Your task to perform on an android device: toggle wifi Image 0: 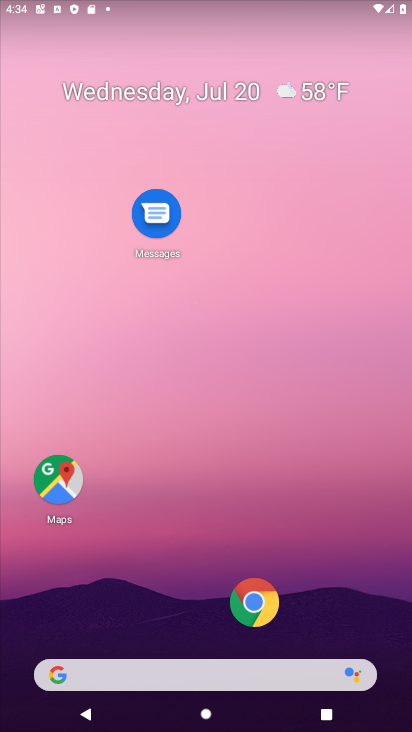
Step 0: drag from (201, 561) to (207, 24)
Your task to perform on an android device: toggle wifi Image 1: 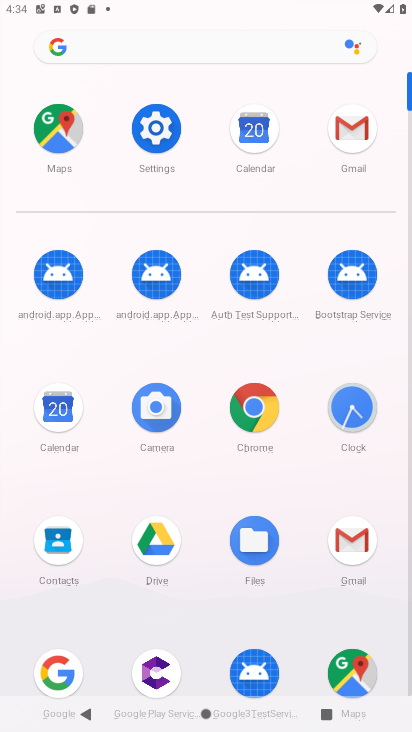
Step 1: click (156, 135)
Your task to perform on an android device: toggle wifi Image 2: 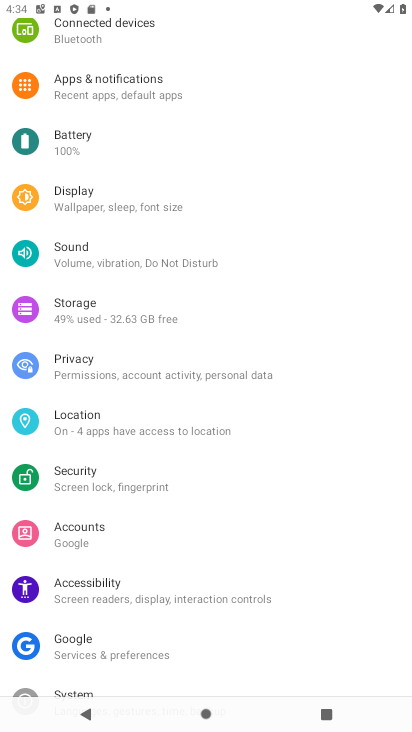
Step 2: click (147, 404)
Your task to perform on an android device: toggle wifi Image 3: 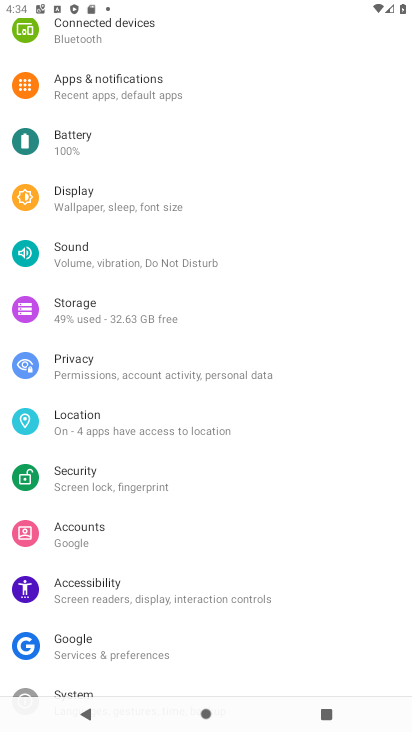
Step 3: drag from (159, 192) to (157, 362)
Your task to perform on an android device: toggle wifi Image 4: 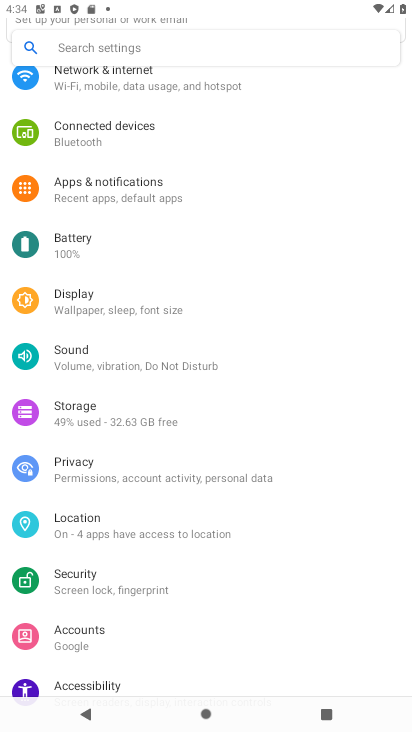
Step 4: drag from (146, 209) to (163, 346)
Your task to perform on an android device: toggle wifi Image 5: 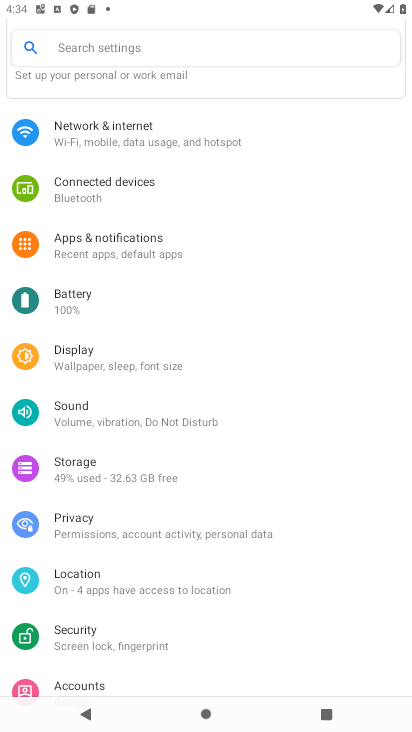
Step 5: click (155, 114)
Your task to perform on an android device: toggle wifi Image 6: 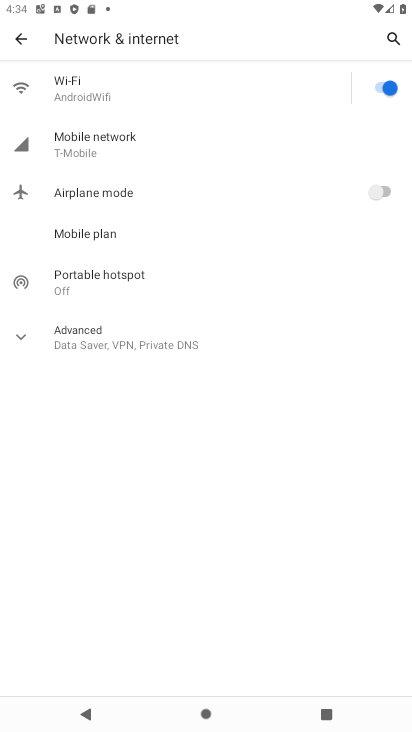
Step 6: task complete